Your task to perform on an android device: open chrome and create a bookmark for the current page Image 0: 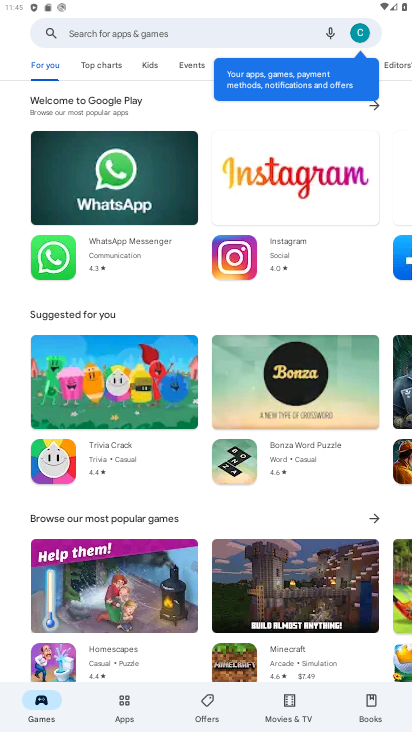
Step 0: press home button
Your task to perform on an android device: open chrome and create a bookmark for the current page Image 1: 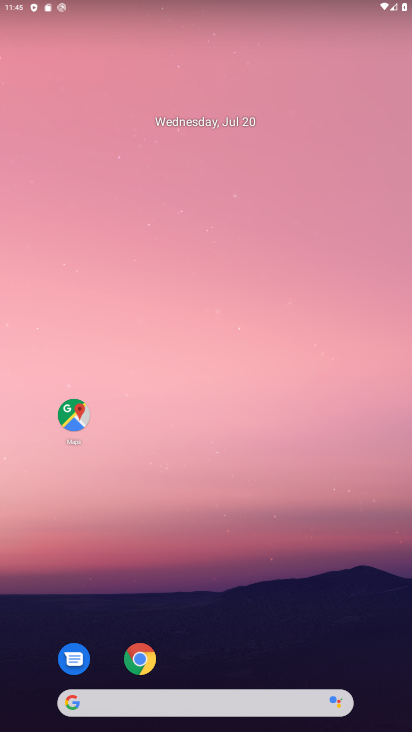
Step 1: drag from (254, 624) to (284, 75)
Your task to perform on an android device: open chrome and create a bookmark for the current page Image 2: 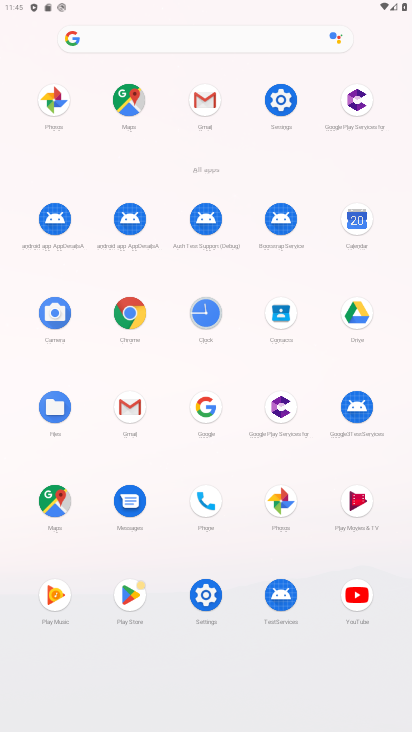
Step 2: click (130, 315)
Your task to perform on an android device: open chrome and create a bookmark for the current page Image 3: 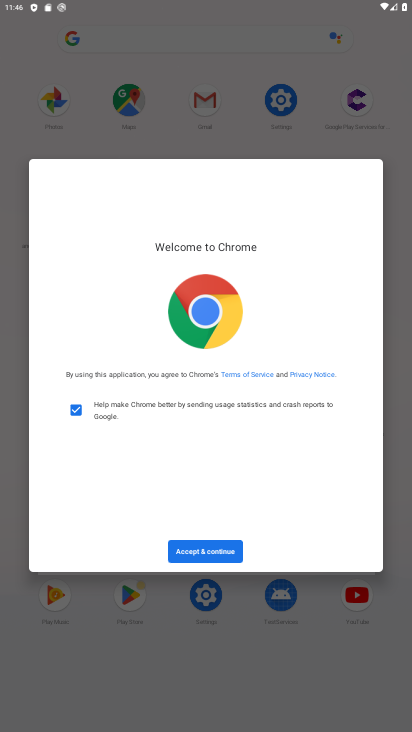
Step 3: click (208, 553)
Your task to perform on an android device: open chrome and create a bookmark for the current page Image 4: 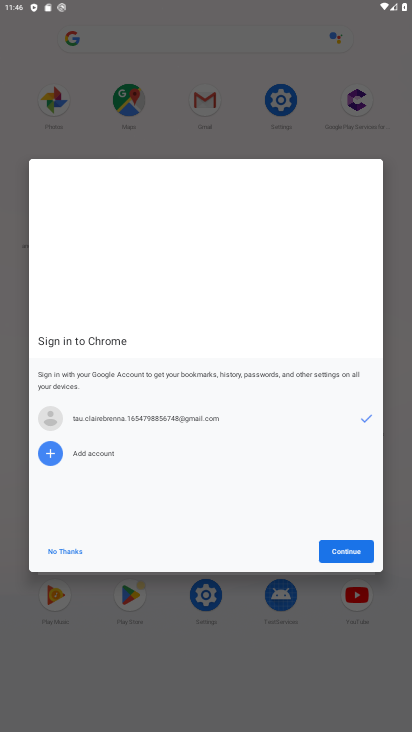
Step 4: click (342, 551)
Your task to perform on an android device: open chrome and create a bookmark for the current page Image 5: 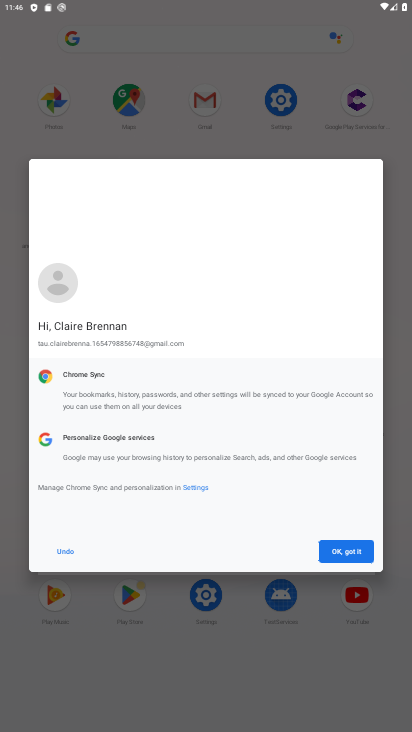
Step 5: click (351, 541)
Your task to perform on an android device: open chrome and create a bookmark for the current page Image 6: 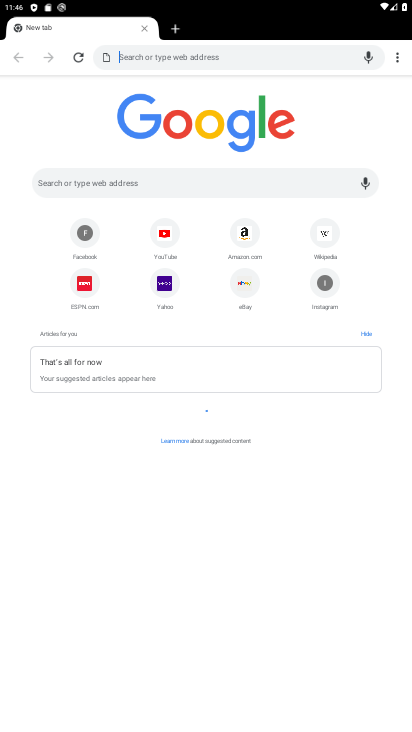
Step 6: drag from (396, 59) to (84, 102)
Your task to perform on an android device: open chrome and create a bookmark for the current page Image 7: 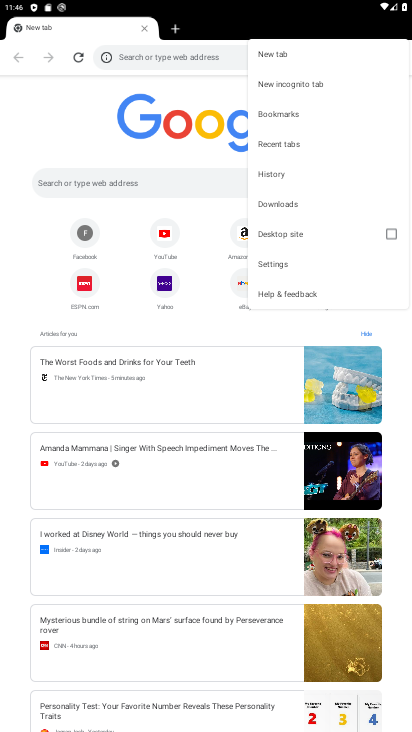
Step 7: click (95, 87)
Your task to perform on an android device: open chrome and create a bookmark for the current page Image 8: 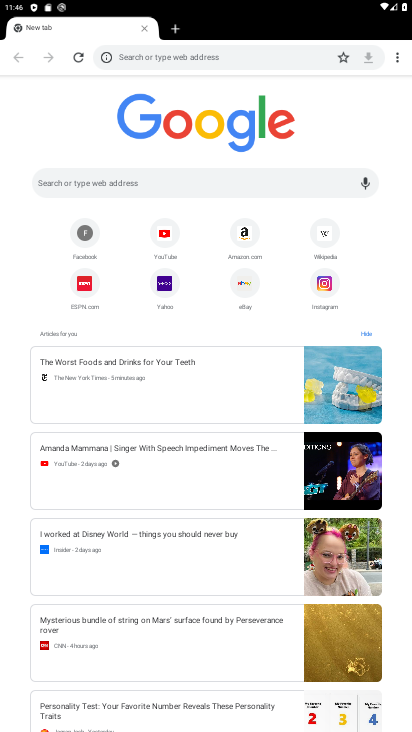
Step 8: click (346, 56)
Your task to perform on an android device: open chrome and create a bookmark for the current page Image 9: 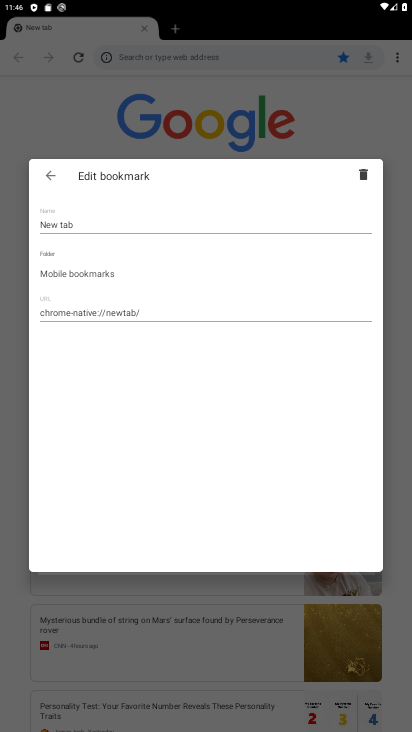
Step 9: click (274, 121)
Your task to perform on an android device: open chrome and create a bookmark for the current page Image 10: 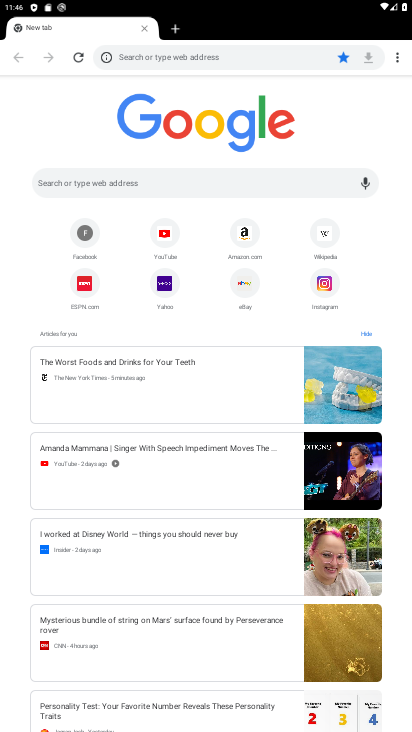
Step 10: task complete